Your task to perform on an android device: Turn off the flashlight Image 0: 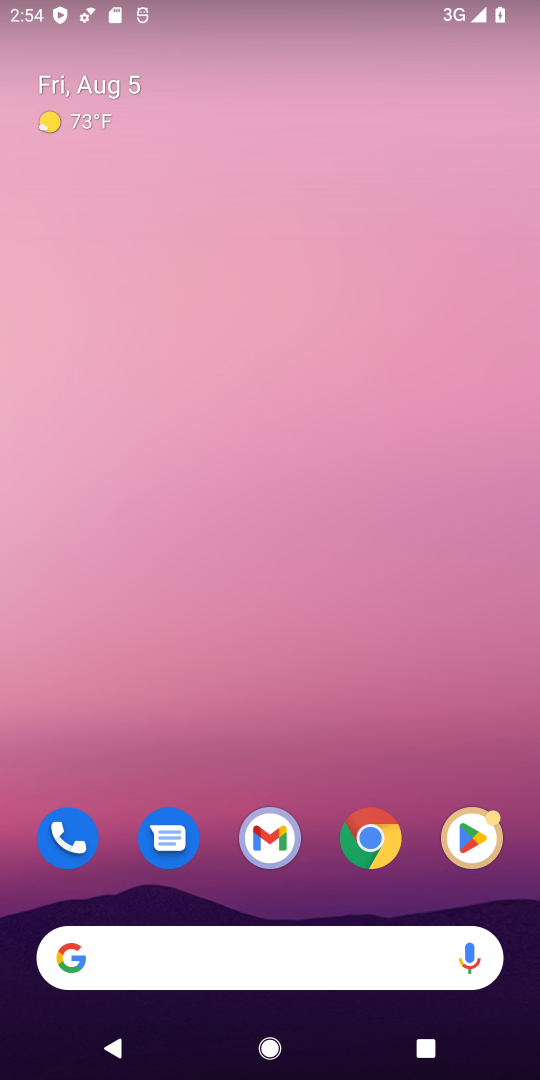
Step 0: drag from (239, 813) to (267, 327)
Your task to perform on an android device: Turn off the flashlight Image 1: 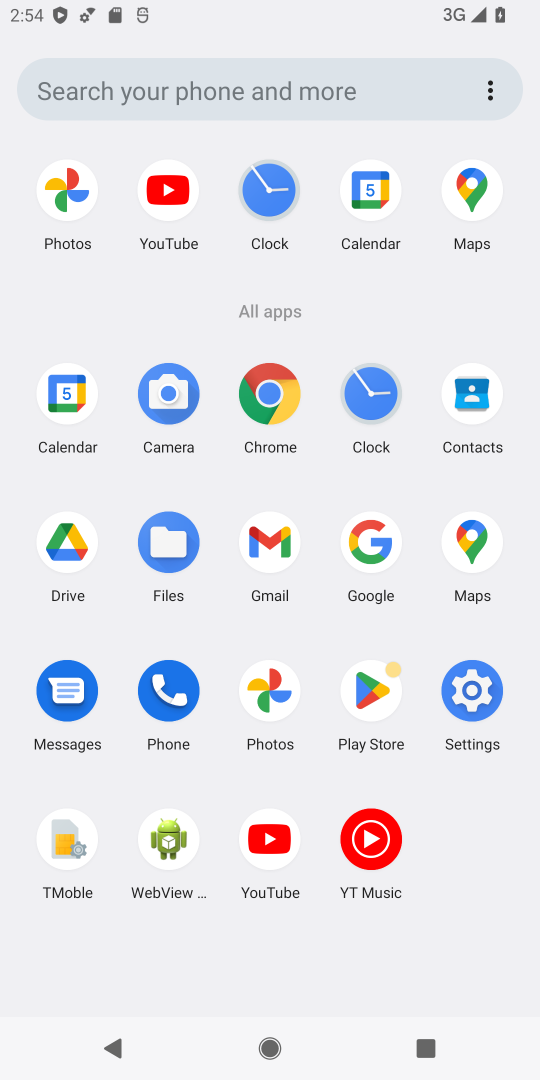
Step 1: click (480, 693)
Your task to perform on an android device: Turn off the flashlight Image 2: 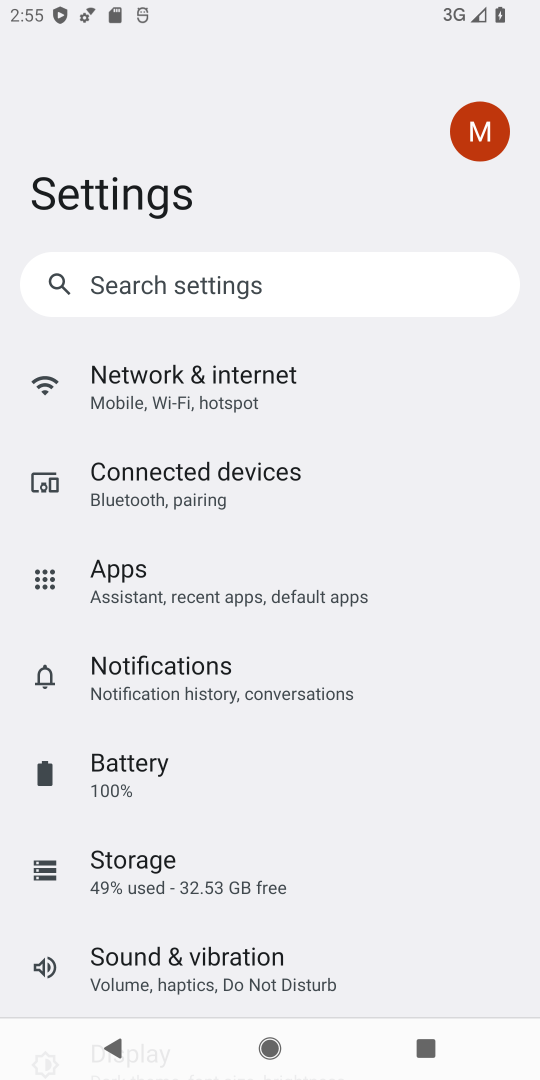
Step 2: task complete